Your task to perform on an android device: Show me the alarms in the clock app Image 0: 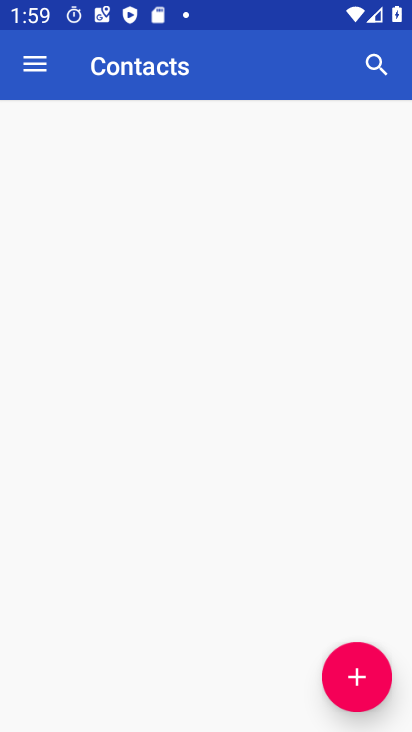
Step 0: press home button
Your task to perform on an android device: Show me the alarms in the clock app Image 1: 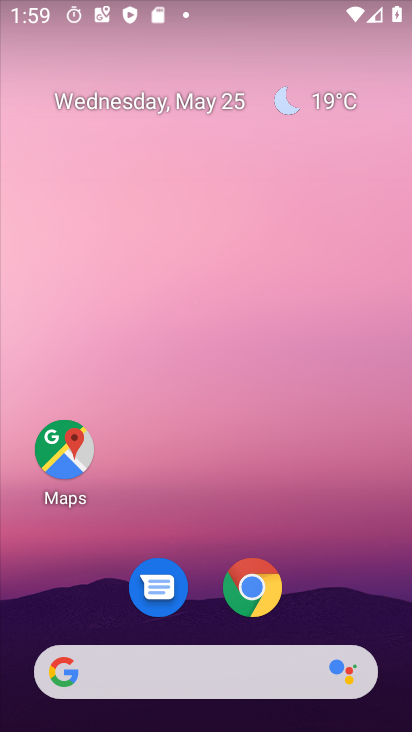
Step 1: drag from (201, 622) to (261, 31)
Your task to perform on an android device: Show me the alarms in the clock app Image 2: 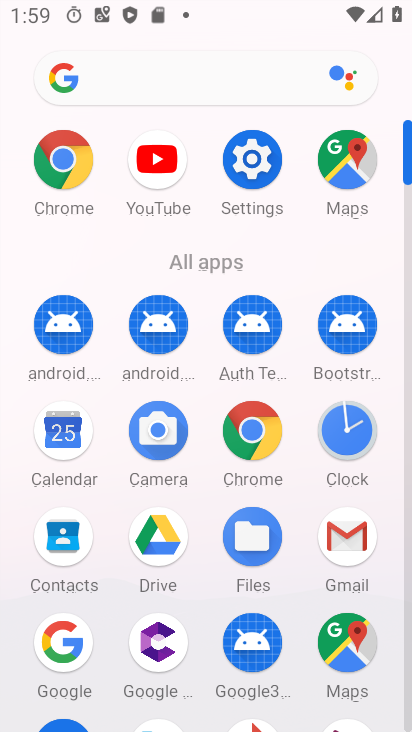
Step 2: click (346, 435)
Your task to perform on an android device: Show me the alarms in the clock app Image 3: 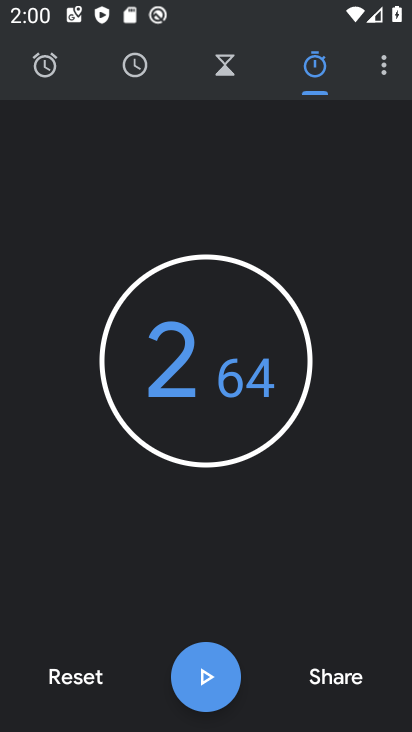
Step 3: click (52, 68)
Your task to perform on an android device: Show me the alarms in the clock app Image 4: 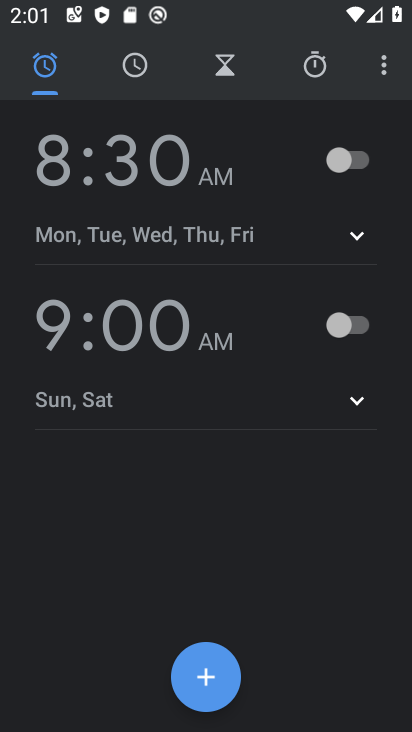
Step 4: task complete